Your task to perform on an android device: toggle notification dots Image 0: 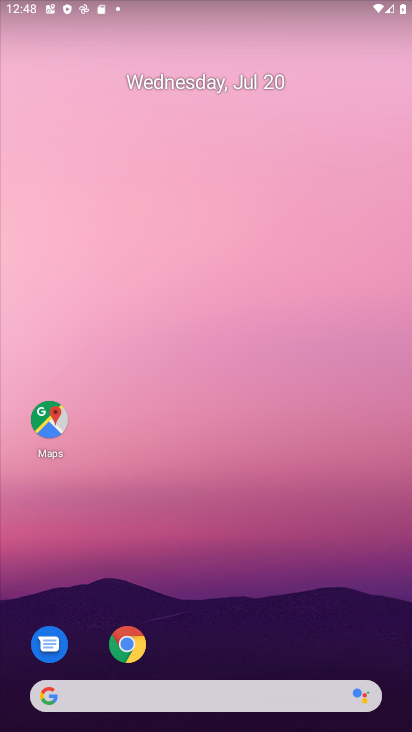
Step 0: press home button
Your task to perform on an android device: toggle notification dots Image 1: 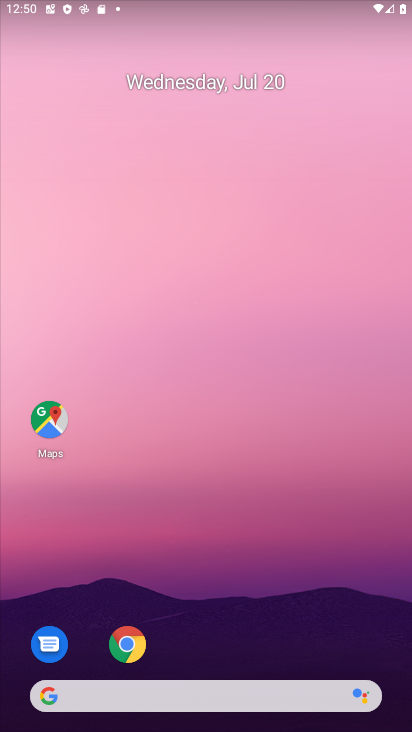
Step 1: drag from (223, 605) to (289, 0)
Your task to perform on an android device: toggle notification dots Image 2: 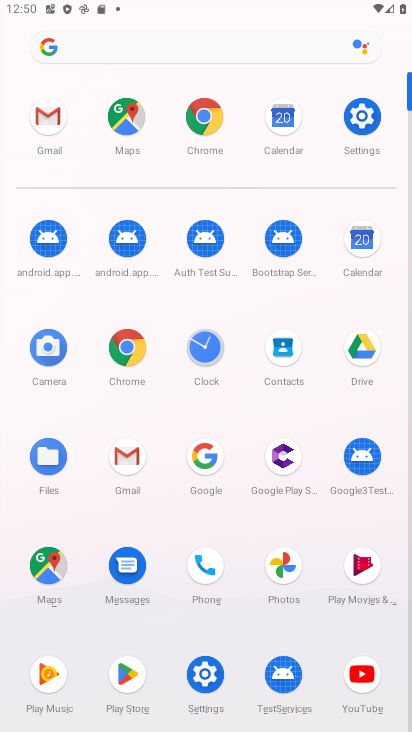
Step 2: click (365, 137)
Your task to perform on an android device: toggle notification dots Image 3: 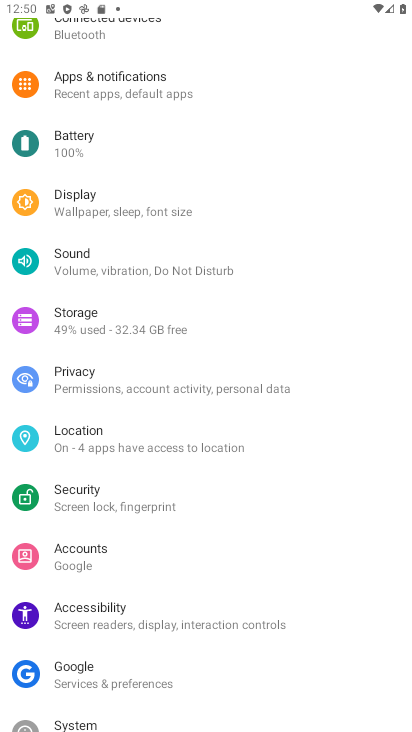
Step 3: click (118, 100)
Your task to perform on an android device: toggle notification dots Image 4: 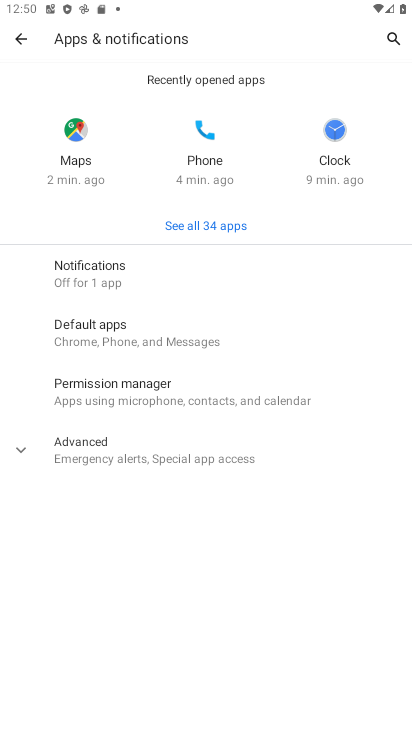
Step 4: click (91, 267)
Your task to perform on an android device: toggle notification dots Image 5: 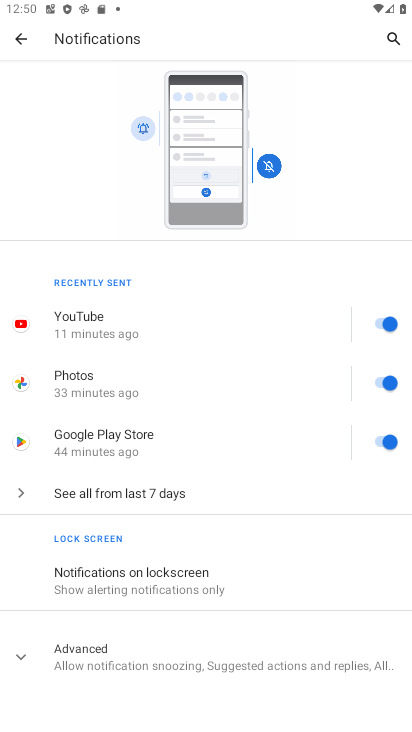
Step 5: click (120, 658)
Your task to perform on an android device: toggle notification dots Image 6: 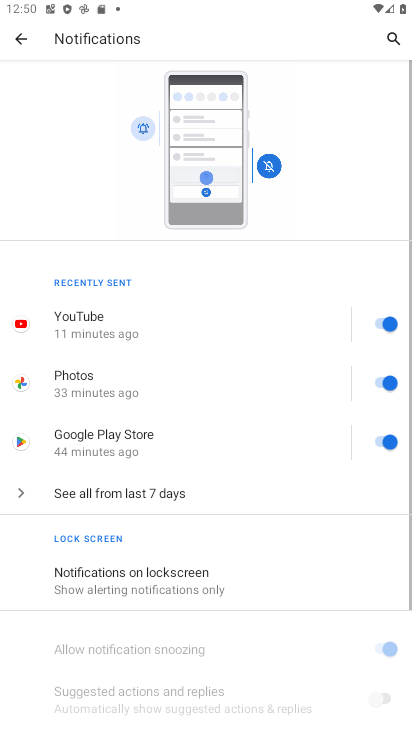
Step 6: drag from (158, 625) to (188, 223)
Your task to perform on an android device: toggle notification dots Image 7: 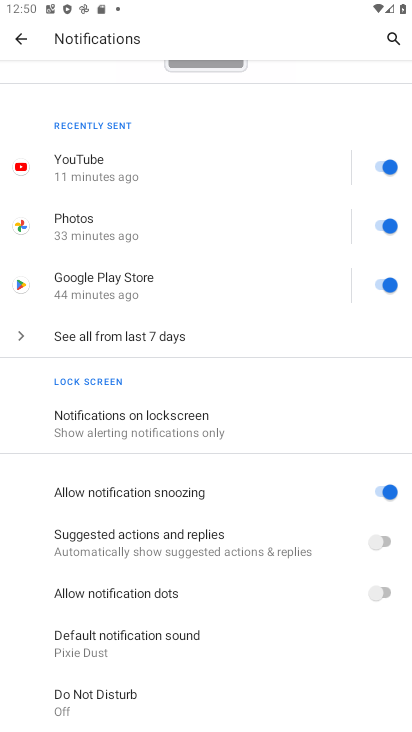
Step 7: click (159, 586)
Your task to perform on an android device: toggle notification dots Image 8: 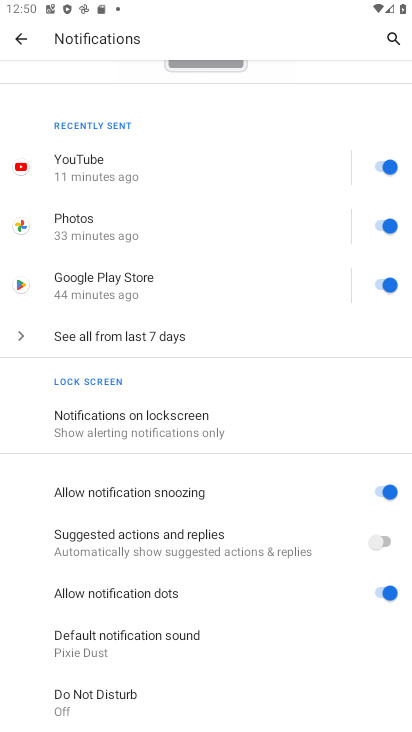
Step 8: task complete